Your task to perform on an android device: Search for pizza restaurants on Maps Image 0: 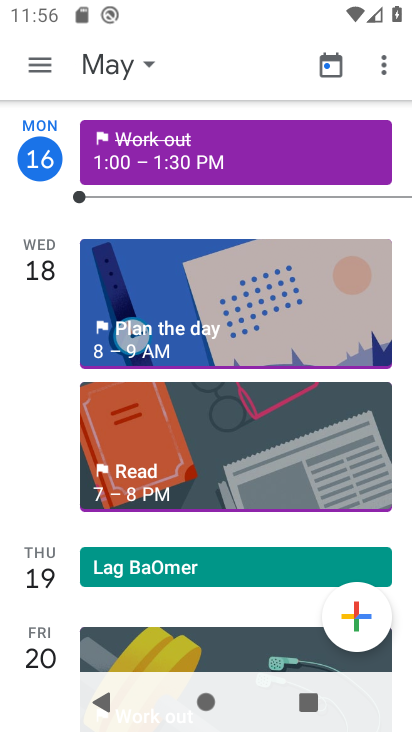
Step 0: press home button
Your task to perform on an android device: Search for pizza restaurants on Maps Image 1: 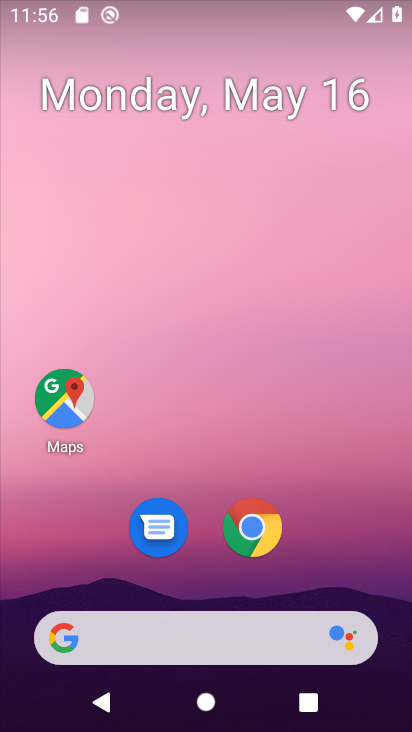
Step 1: click (64, 419)
Your task to perform on an android device: Search for pizza restaurants on Maps Image 2: 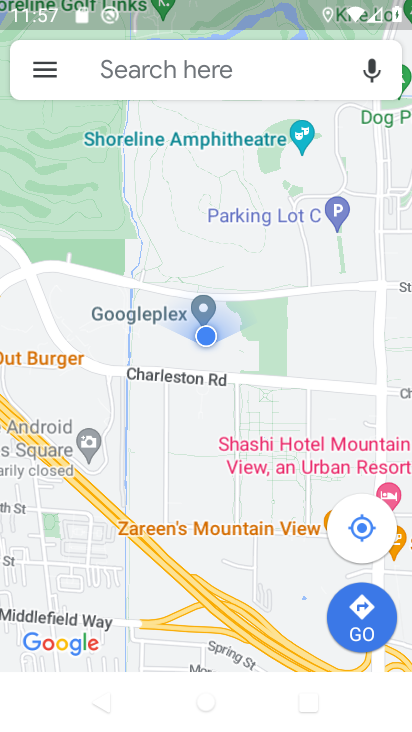
Step 2: click (140, 67)
Your task to perform on an android device: Search for pizza restaurants on Maps Image 3: 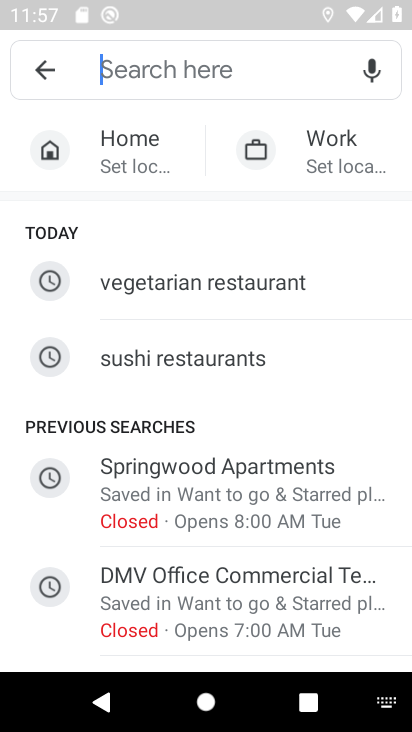
Step 3: drag from (215, 565) to (215, 251)
Your task to perform on an android device: Search for pizza restaurants on Maps Image 4: 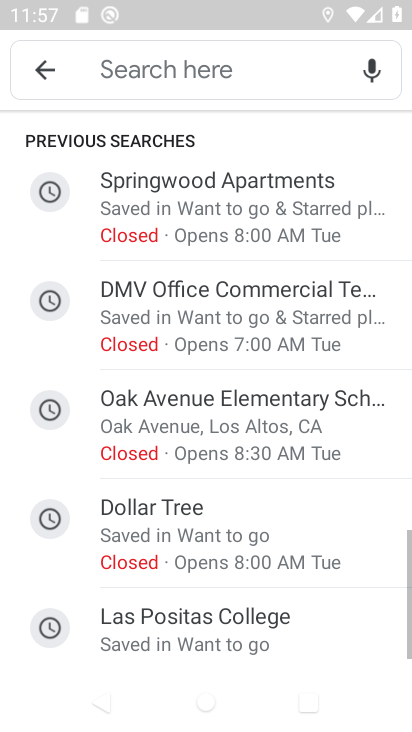
Step 4: drag from (229, 554) to (228, 241)
Your task to perform on an android device: Search for pizza restaurants on Maps Image 5: 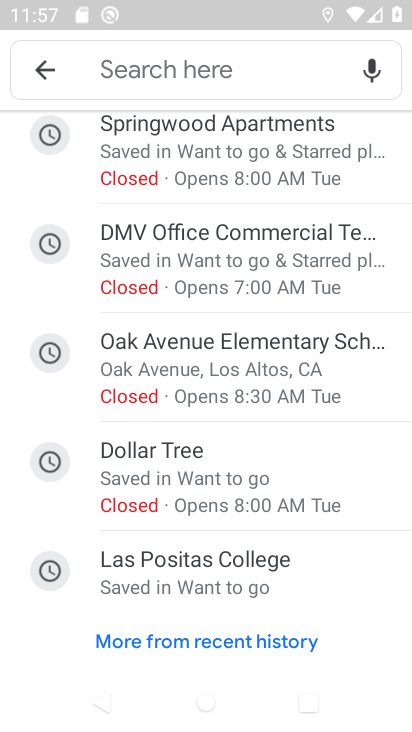
Step 5: click (208, 73)
Your task to perform on an android device: Search for pizza restaurants on Maps Image 6: 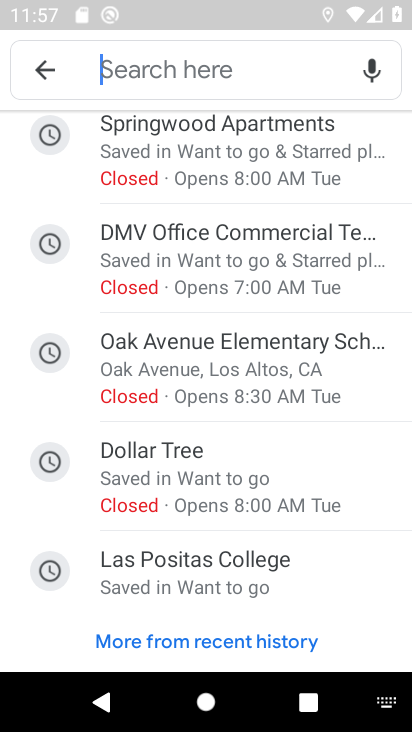
Step 6: type "pizza restaurant"
Your task to perform on an android device: Search for pizza restaurants on Maps Image 7: 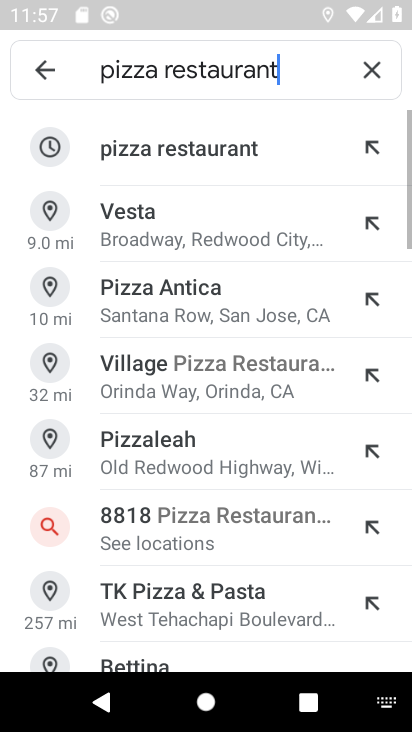
Step 7: click (238, 145)
Your task to perform on an android device: Search for pizza restaurants on Maps Image 8: 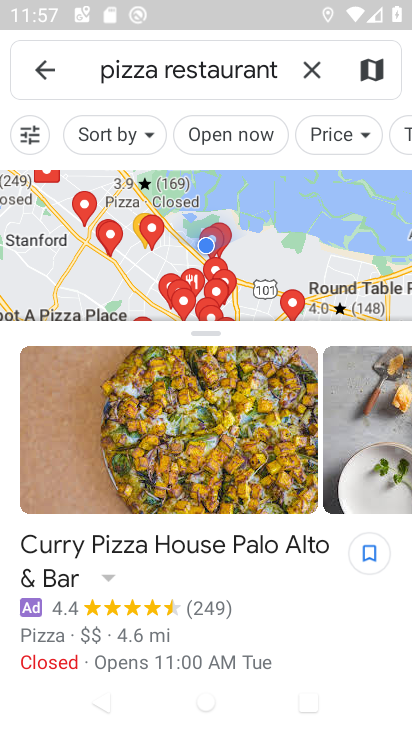
Step 8: task complete